Your task to perform on an android device: Show me popular videos on Youtube Image 0: 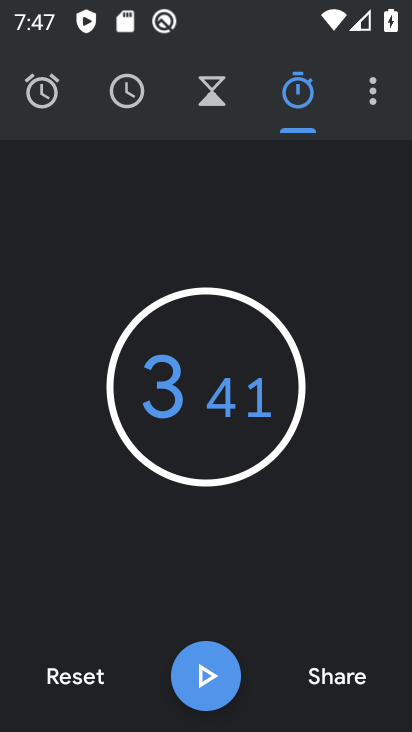
Step 0: press home button
Your task to perform on an android device: Show me popular videos on Youtube Image 1: 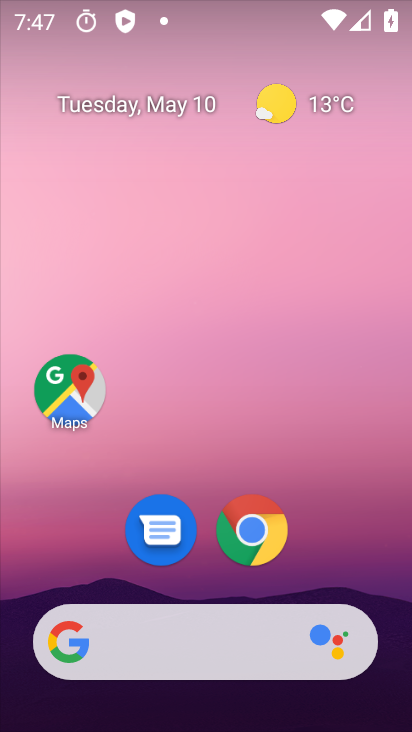
Step 1: drag from (364, 575) to (295, 130)
Your task to perform on an android device: Show me popular videos on Youtube Image 2: 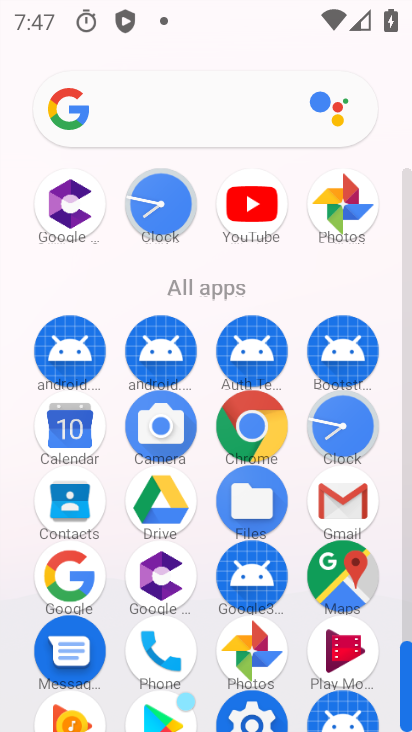
Step 2: click (246, 197)
Your task to perform on an android device: Show me popular videos on Youtube Image 3: 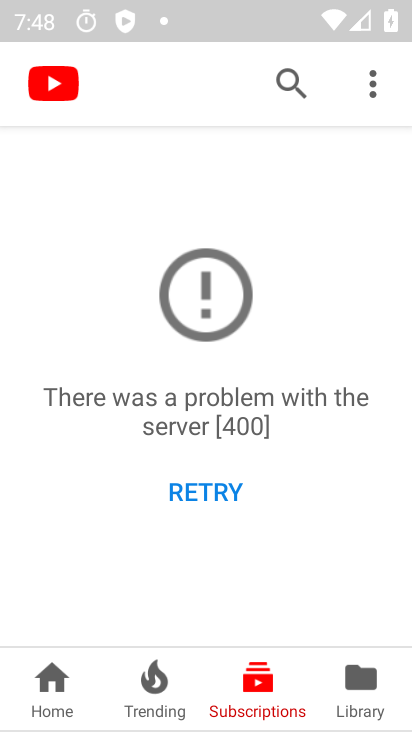
Step 3: click (53, 671)
Your task to perform on an android device: Show me popular videos on Youtube Image 4: 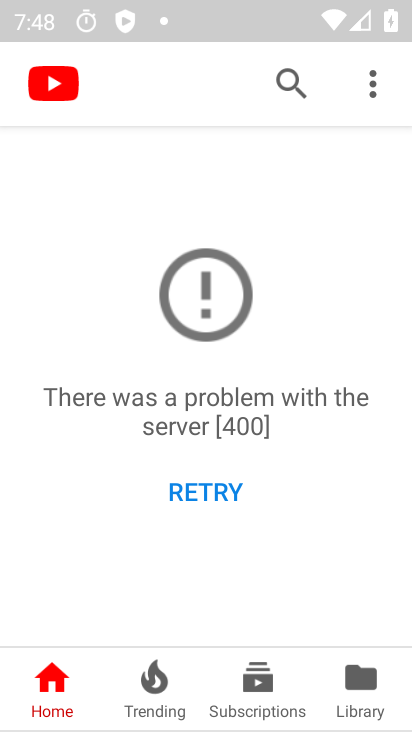
Step 4: task complete